Your task to perform on an android device: open wifi settings Image 0: 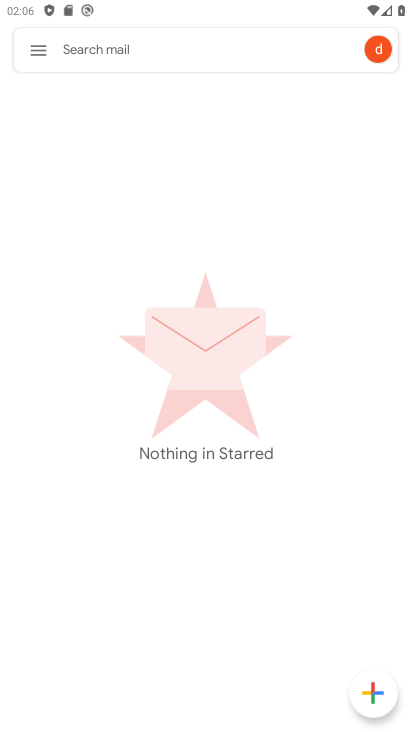
Step 0: press home button
Your task to perform on an android device: open wifi settings Image 1: 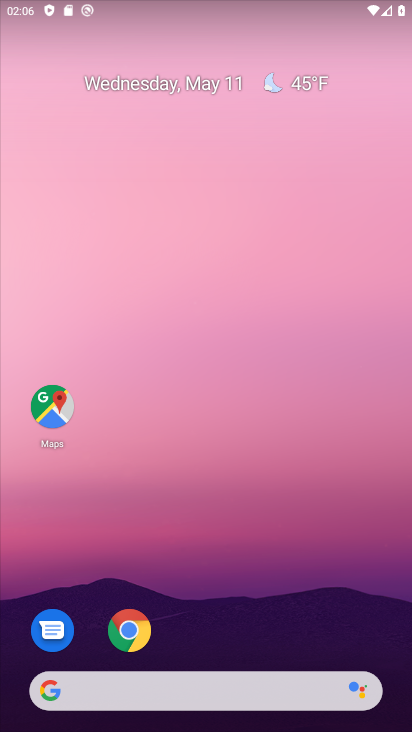
Step 1: drag from (183, 712) to (173, 125)
Your task to perform on an android device: open wifi settings Image 2: 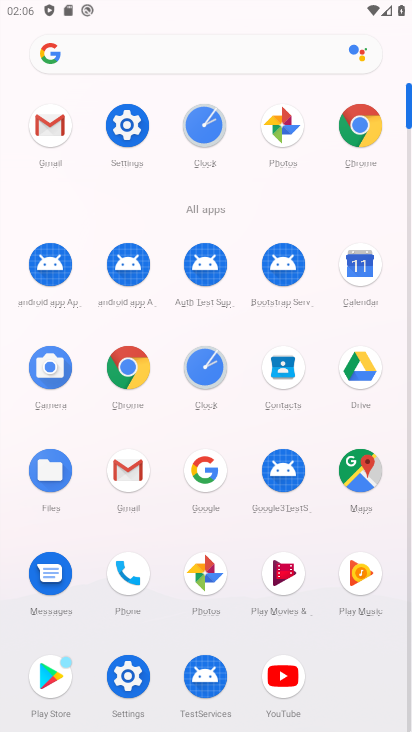
Step 2: click (127, 132)
Your task to perform on an android device: open wifi settings Image 3: 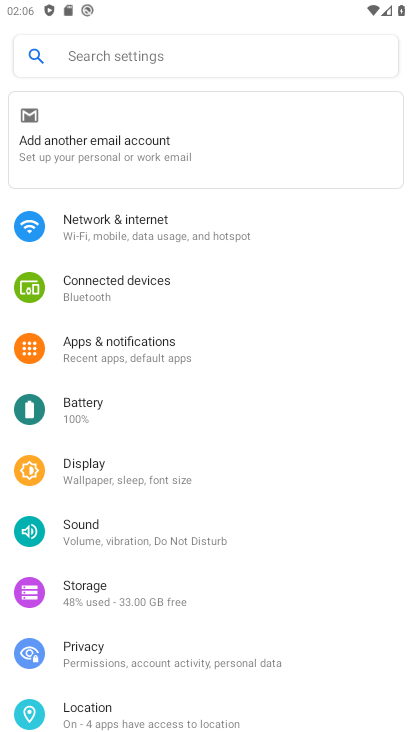
Step 3: click (130, 219)
Your task to perform on an android device: open wifi settings Image 4: 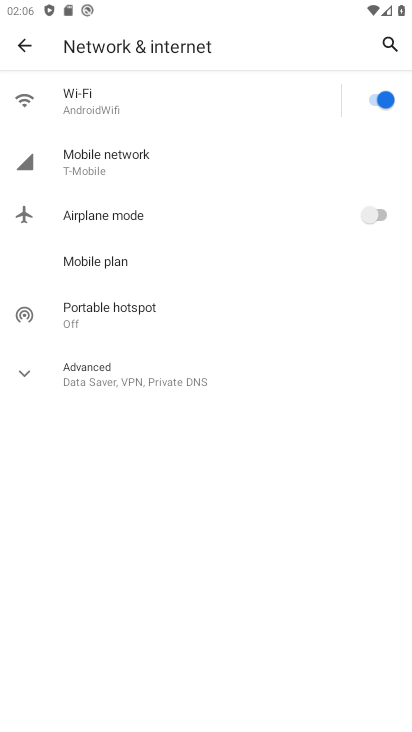
Step 4: click (90, 97)
Your task to perform on an android device: open wifi settings Image 5: 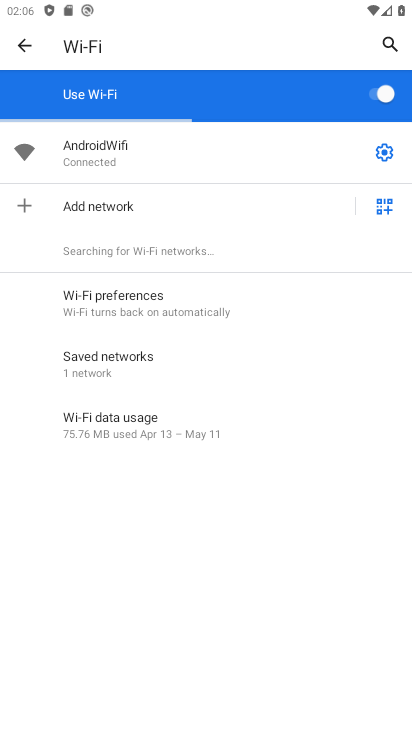
Step 5: task complete